Your task to perform on an android device: check out phone information Image 0: 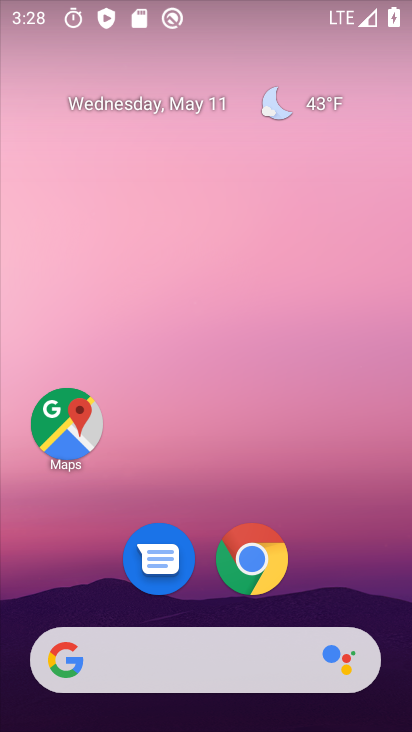
Step 0: drag from (335, 573) to (209, 44)
Your task to perform on an android device: check out phone information Image 1: 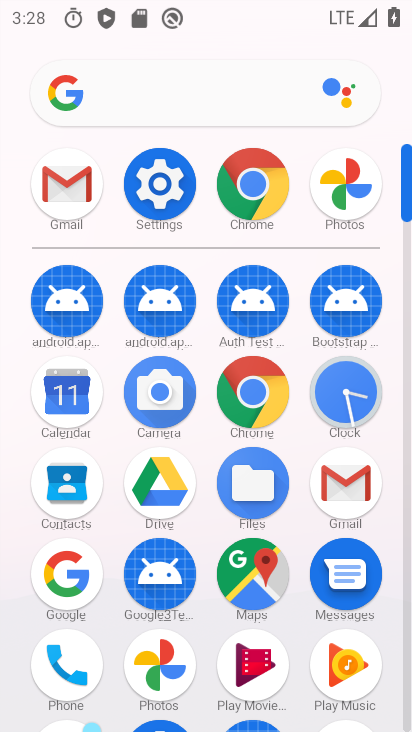
Step 1: click (166, 199)
Your task to perform on an android device: check out phone information Image 2: 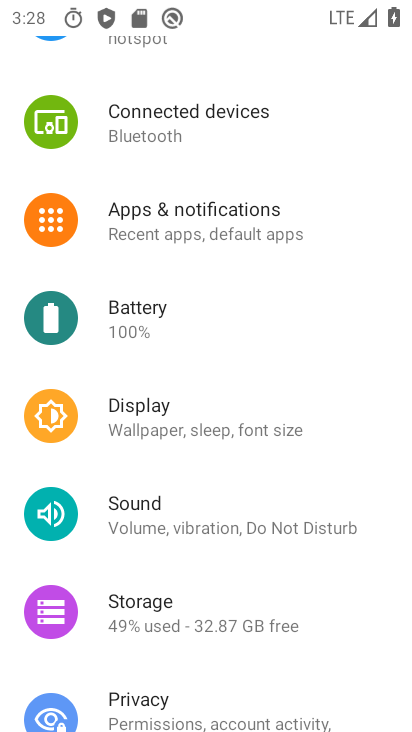
Step 2: drag from (232, 618) to (230, 116)
Your task to perform on an android device: check out phone information Image 3: 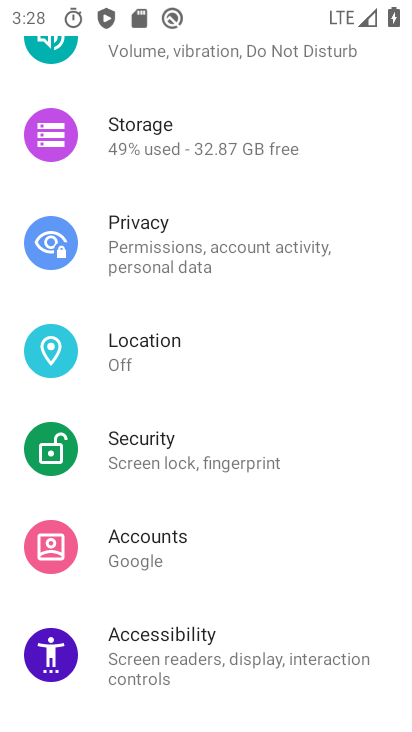
Step 3: drag from (233, 580) to (236, 156)
Your task to perform on an android device: check out phone information Image 4: 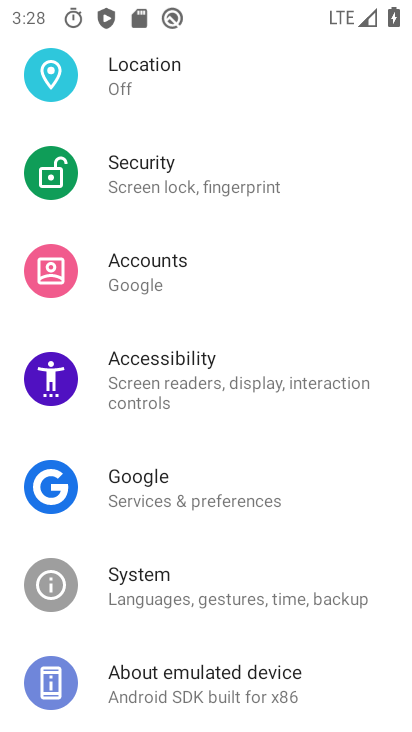
Step 4: click (209, 672)
Your task to perform on an android device: check out phone information Image 5: 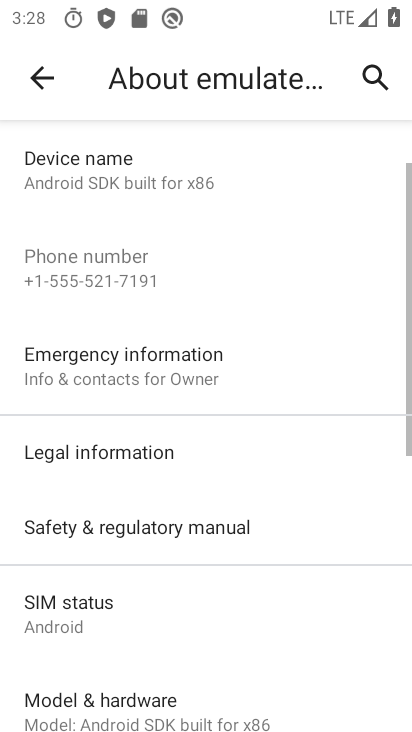
Step 5: task complete